Your task to perform on an android device: turn off notifications in google photos Image 0: 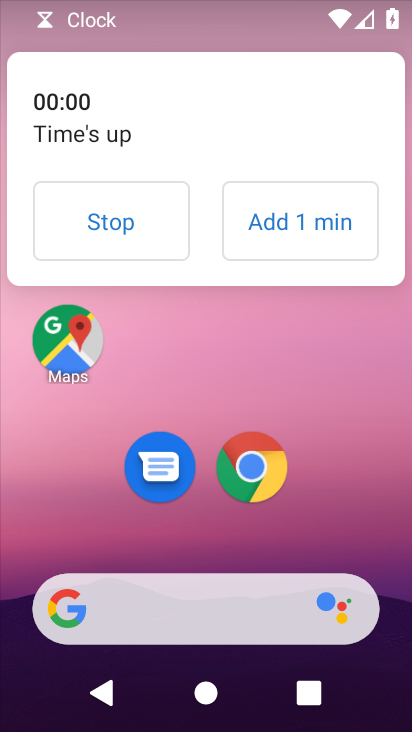
Step 0: drag from (209, 535) to (215, 5)
Your task to perform on an android device: turn off notifications in google photos Image 1: 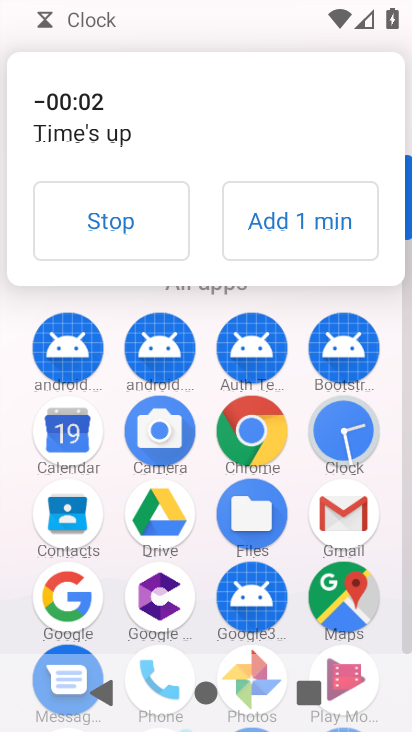
Step 1: click (116, 231)
Your task to perform on an android device: turn off notifications in google photos Image 2: 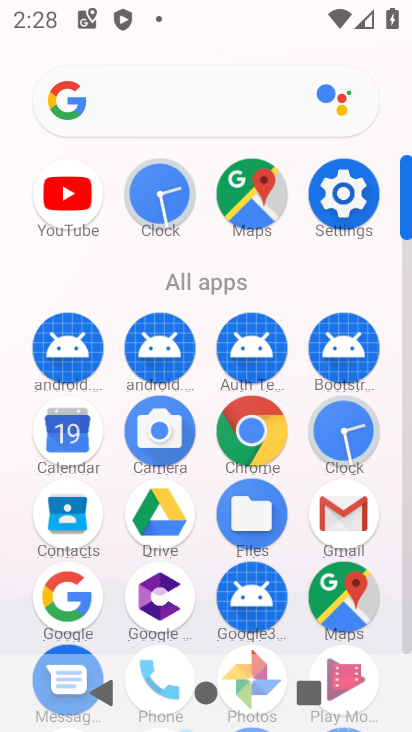
Step 2: drag from (309, 635) to (289, 335)
Your task to perform on an android device: turn off notifications in google photos Image 3: 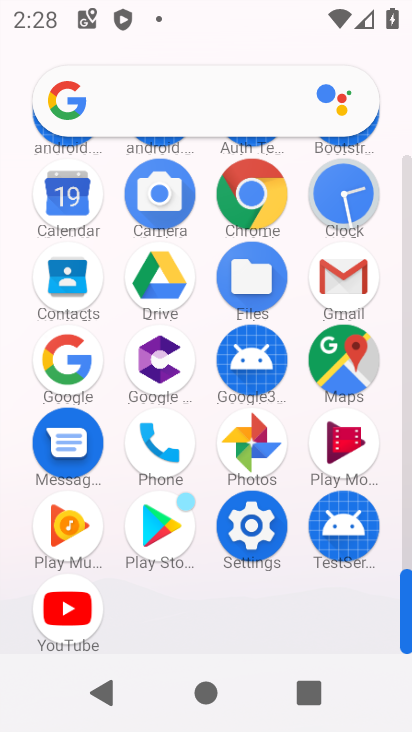
Step 3: click (265, 443)
Your task to perform on an android device: turn off notifications in google photos Image 4: 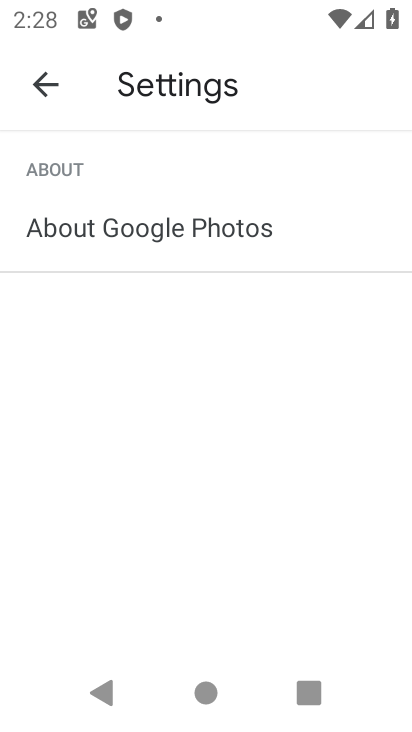
Step 4: click (227, 421)
Your task to perform on an android device: turn off notifications in google photos Image 5: 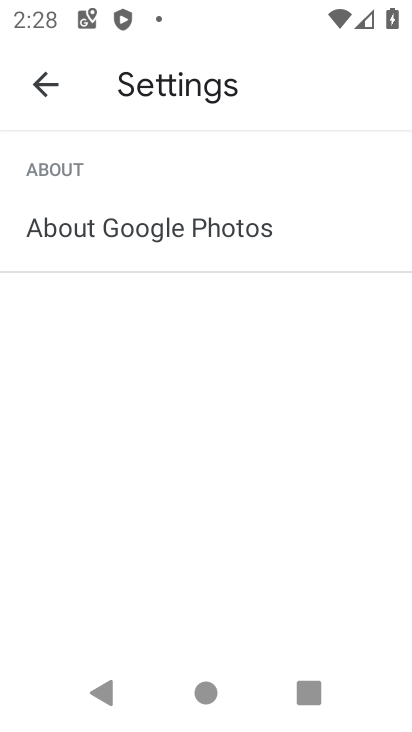
Step 5: press back button
Your task to perform on an android device: turn off notifications in google photos Image 6: 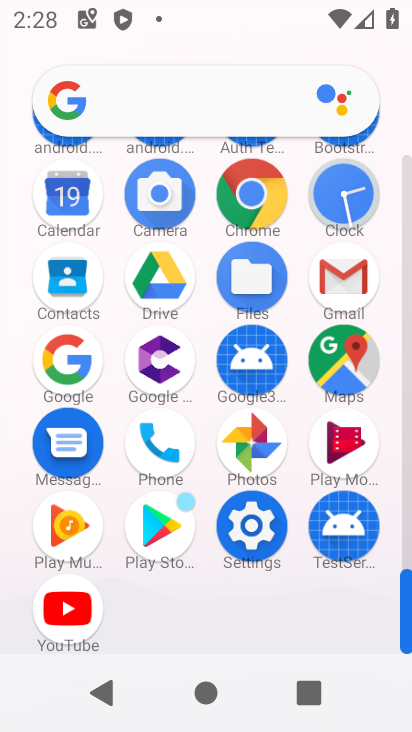
Step 6: click (245, 439)
Your task to perform on an android device: turn off notifications in google photos Image 7: 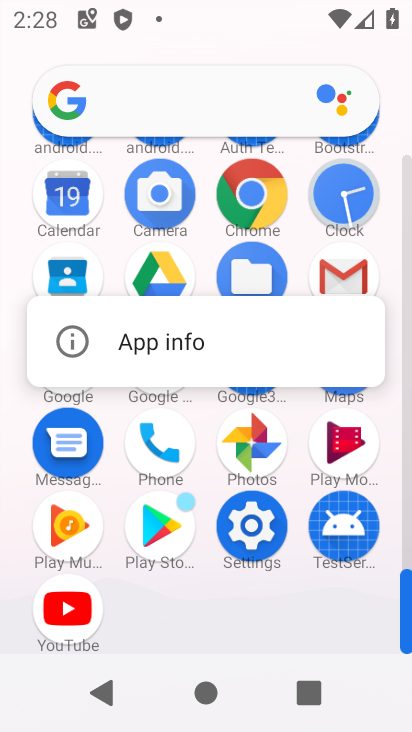
Step 7: click (149, 338)
Your task to perform on an android device: turn off notifications in google photos Image 8: 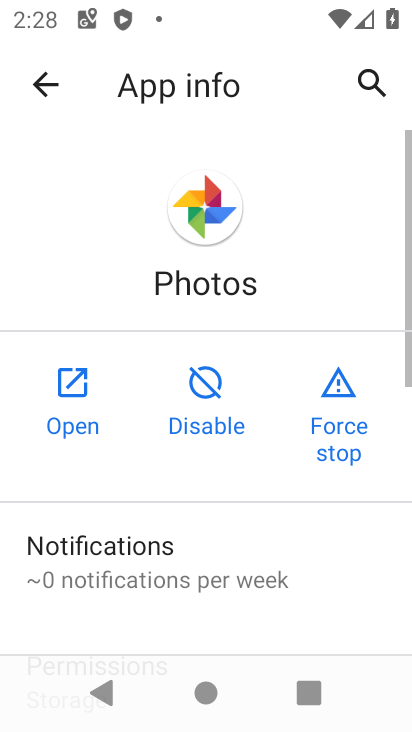
Step 8: click (38, 392)
Your task to perform on an android device: turn off notifications in google photos Image 9: 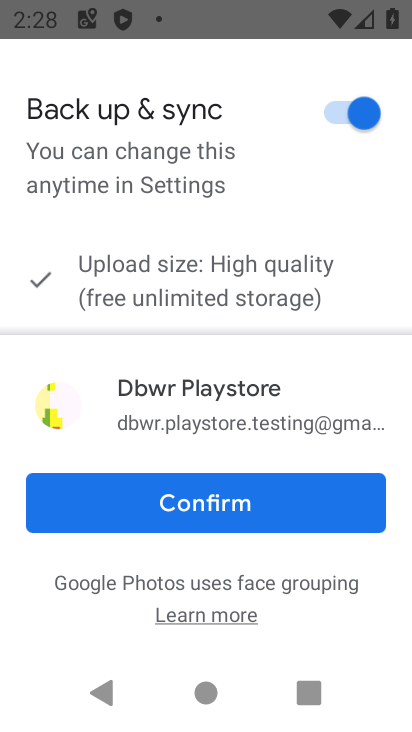
Step 9: click (211, 519)
Your task to perform on an android device: turn off notifications in google photos Image 10: 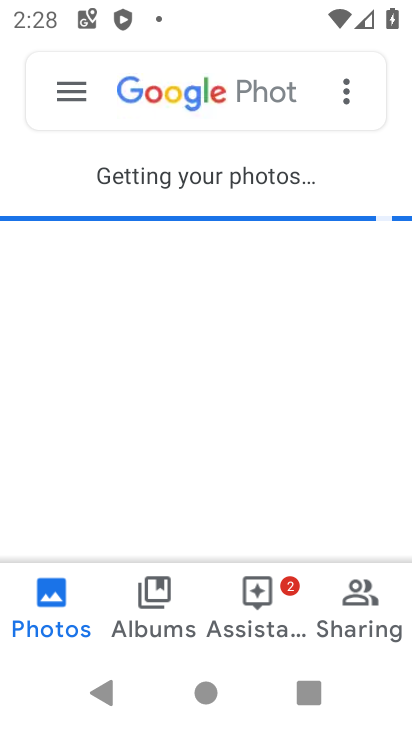
Step 10: click (55, 93)
Your task to perform on an android device: turn off notifications in google photos Image 11: 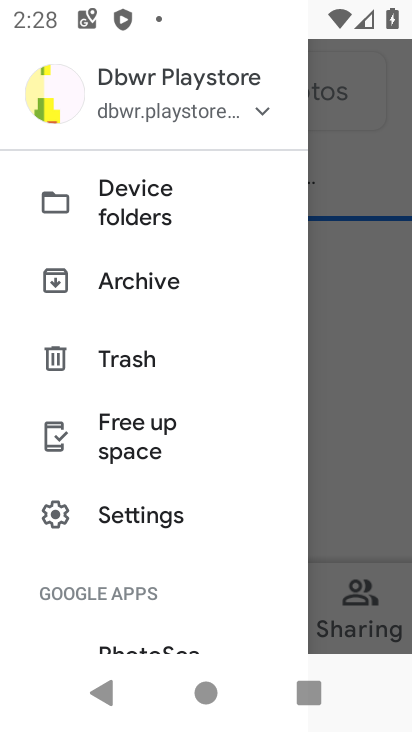
Step 11: click (143, 513)
Your task to perform on an android device: turn off notifications in google photos Image 12: 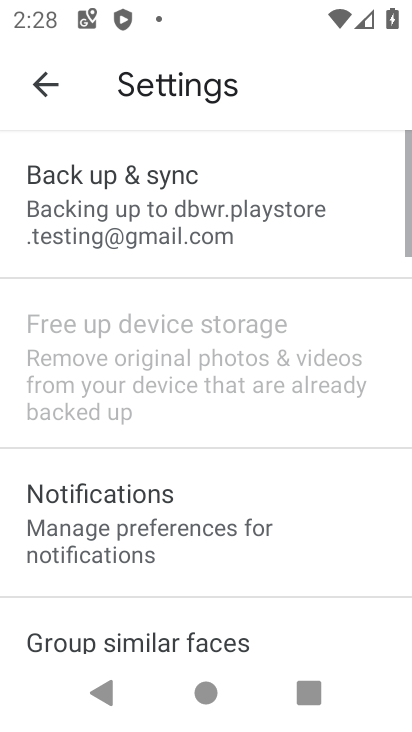
Step 12: drag from (172, 542) to (317, 43)
Your task to perform on an android device: turn off notifications in google photos Image 13: 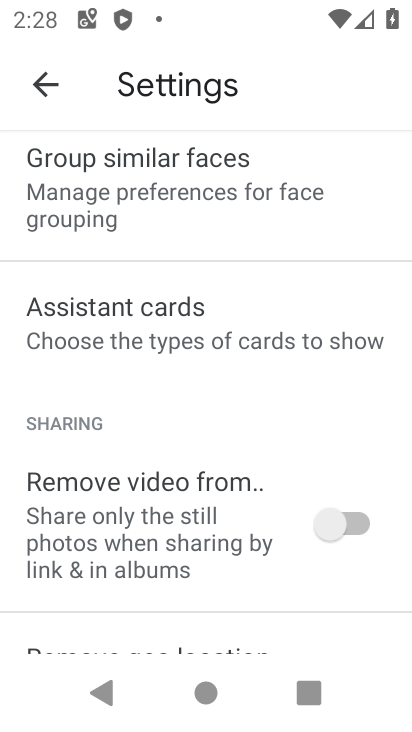
Step 13: drag from (171, 246) to (215, 665)
Your task to perform on an android device: turn off notifications in google photos Image 14: 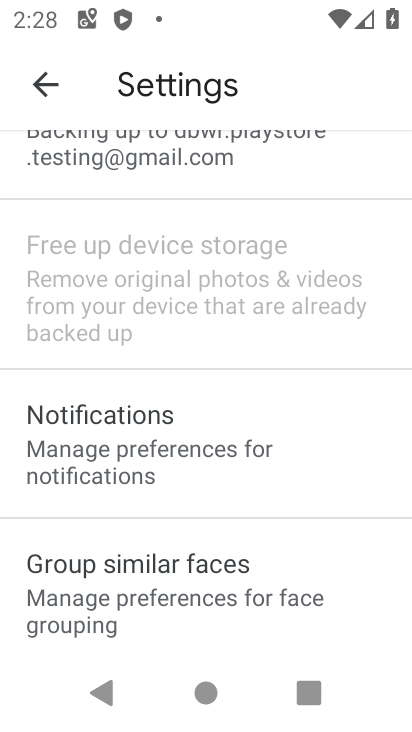
Step 14: click (153, 482)
Your task to perform on an android device: turn off notifications in google photos Image 15: 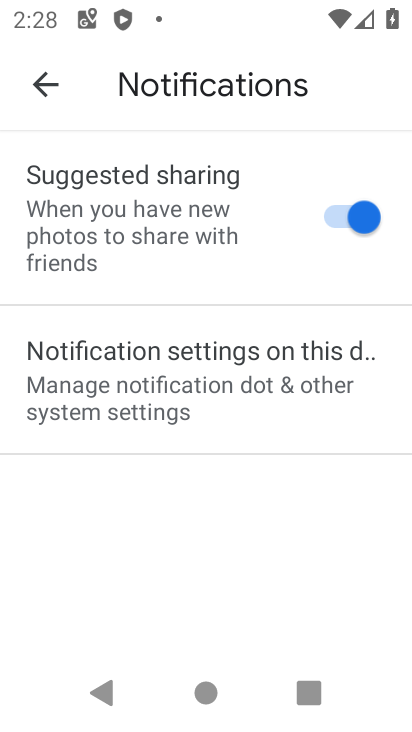
Step 15: click (177, 363)
Your task to perform on an android device: turn off notifications in google photos Image 16: 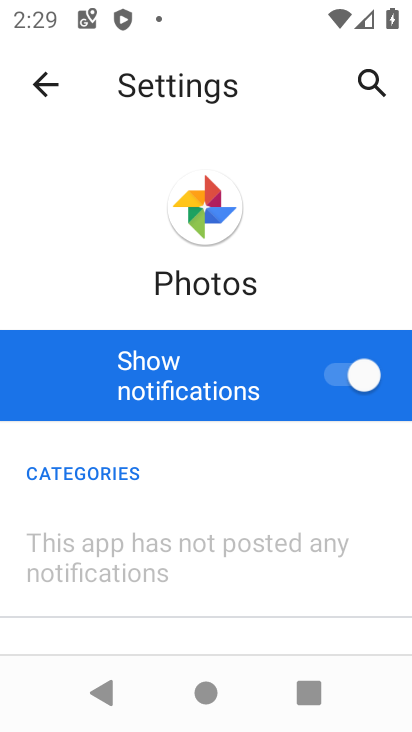
Step 16: click (357, 371)
Your task to perform on an android device: turn off notifications in google photos Image 17: 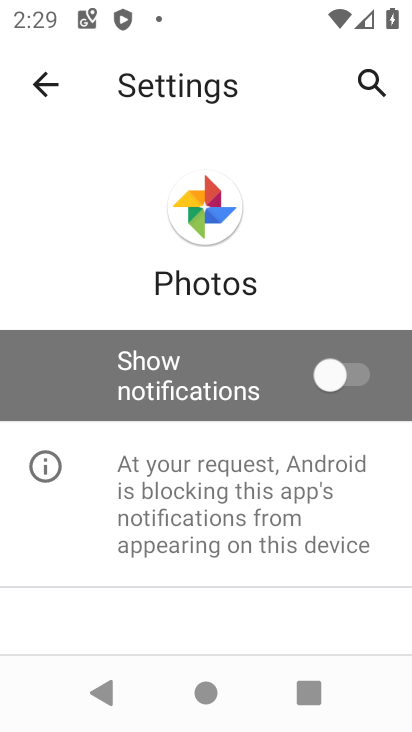
Step 17: task complete